Your task to perform on an android device: Open Chrome and go to the settings page Image 0: 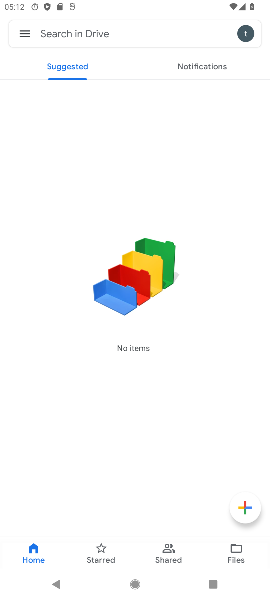
Step 0: click (27, 27)
Your task to perform on an android device: Open Chrome and go to the settings page Image 1: 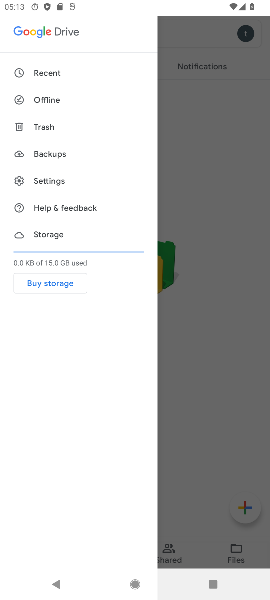
Step 1: click (50, 184)
Your task to perform on an android device: Open Chrome and go to the settings page Image 2: 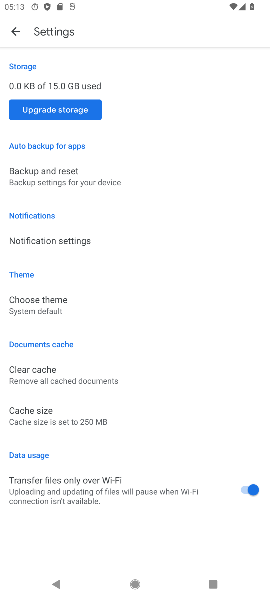
Step 2: task complete